Your task to perform on an android device: Open Google Maps and go to "Timeline" Image 0: 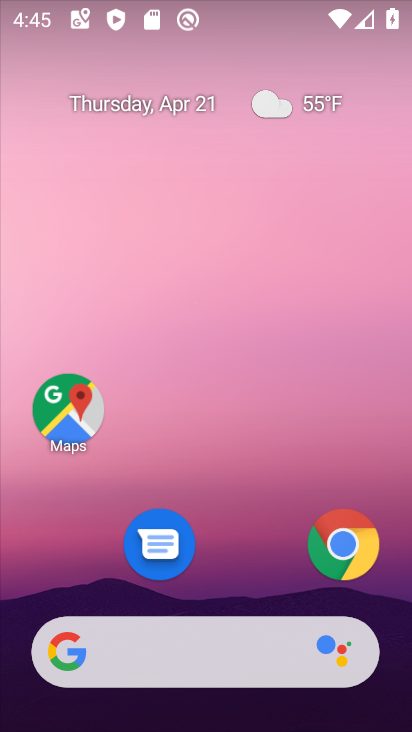
Step 0: drag from (216, 728) to (304, 192)
Your task to perform on an android device: Open Google Maps and go to "Timeline" Image 1: 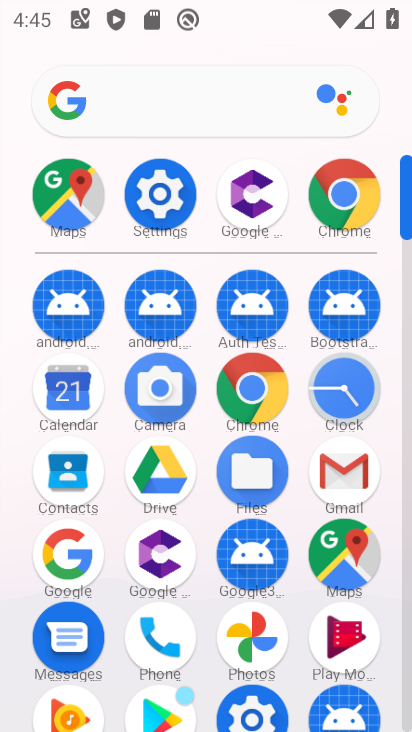
Step 1: click (339, 563)
Your task to perform on an android device: Open Google Maps and go to "Timeline" Image 2: 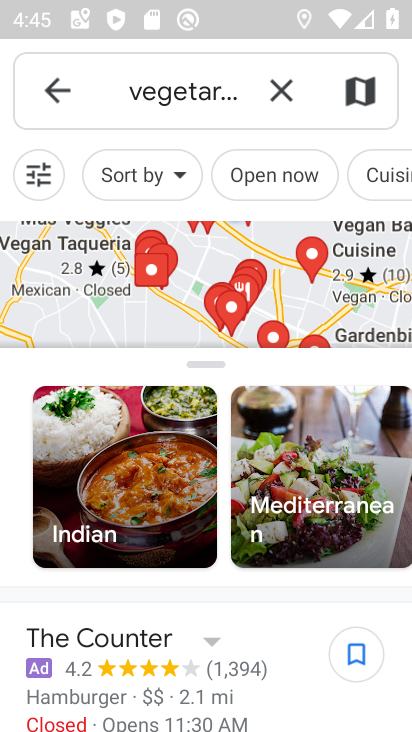
Step 2: click (276, 90)
Your task to perform on an android device: Open Google Maps and go to "Timeline" Image 3: 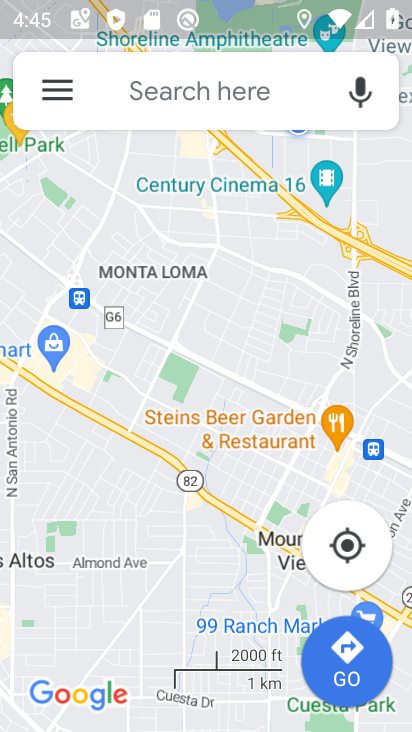
Step 3: click (51, 96)
Your task to perform on an android device: Open Google Maps and go to "Timeline" Image 4: 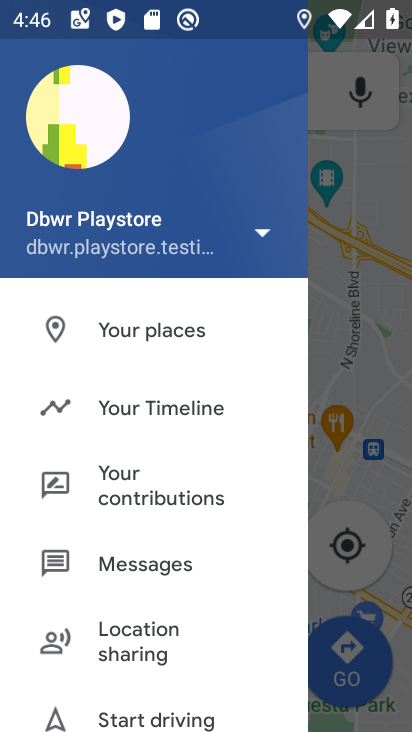
Step 4: click (123, 408)
Your task to perform on an android device: Open Google Maps and go to "Timeline" Image 5: 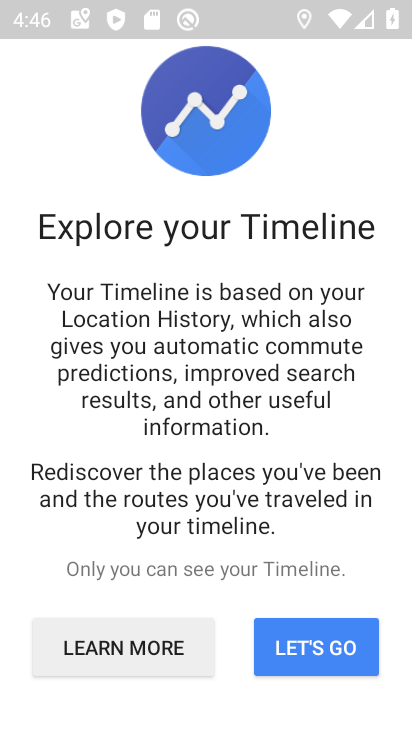
Step 5: click (329, 628)
Your task to perform on an android device: Open Google Maps and go to "Timeline" Image 6: 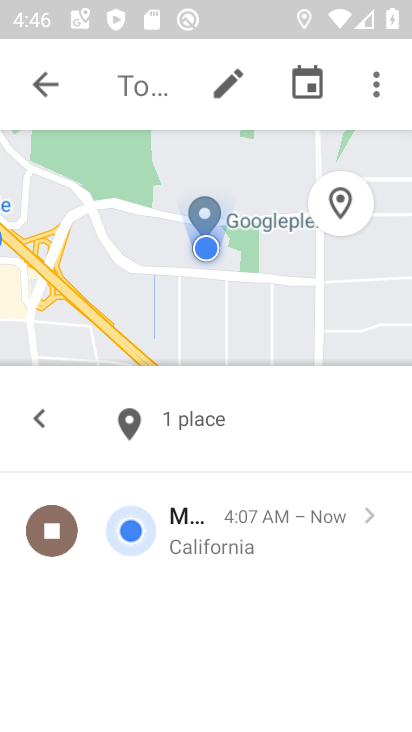
Step 6: task complete